Your task to perform on an android device: check android version Image 0: 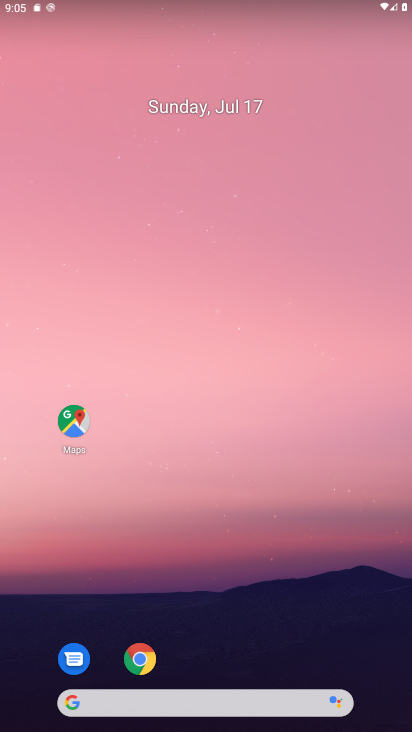
Step 0: drag from (189, 697) to (197, 173)
Your task to perform on an android device: check android version Image 1: 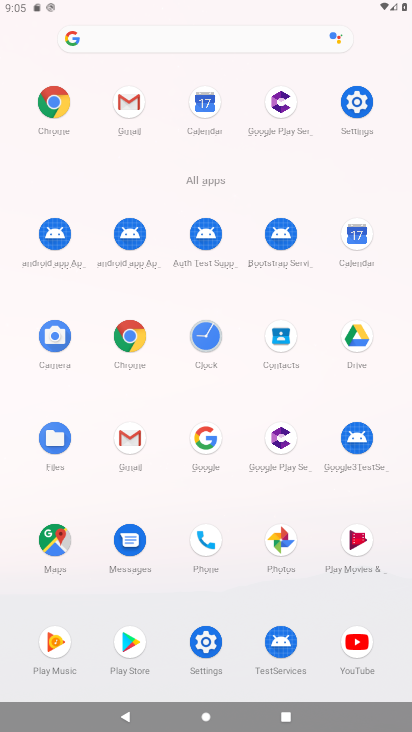
Step 1: click (371, 104)
Your task to perform on an android device: check android version Image 2: 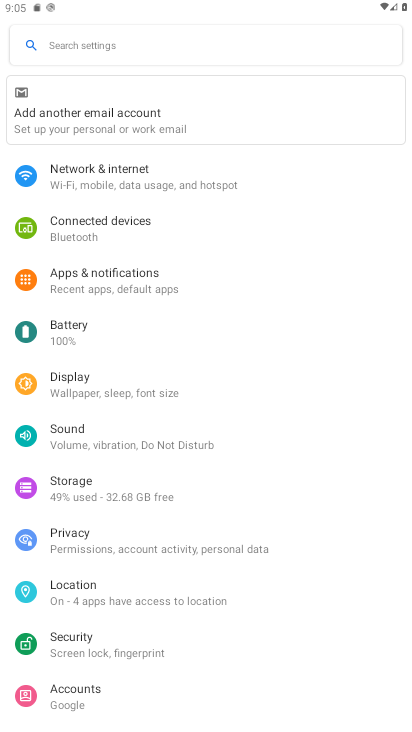
Step 2: drag from (107, 630) to (136, 114)
Your task to perform on an android device: check android version Image 3: 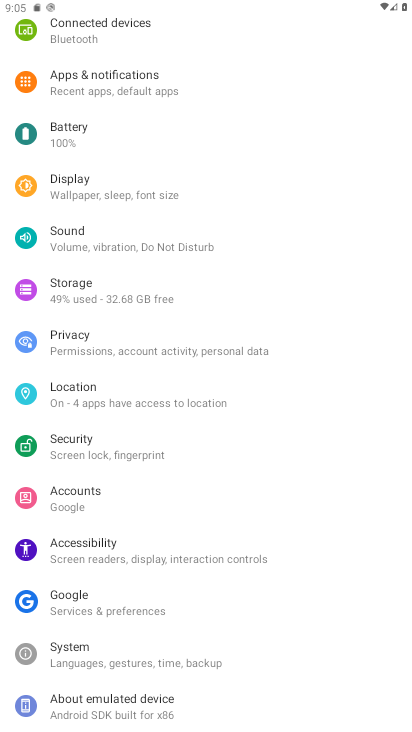
Step 3: click (116, 701)
Your task to perform on an android device: check android version Image 4: 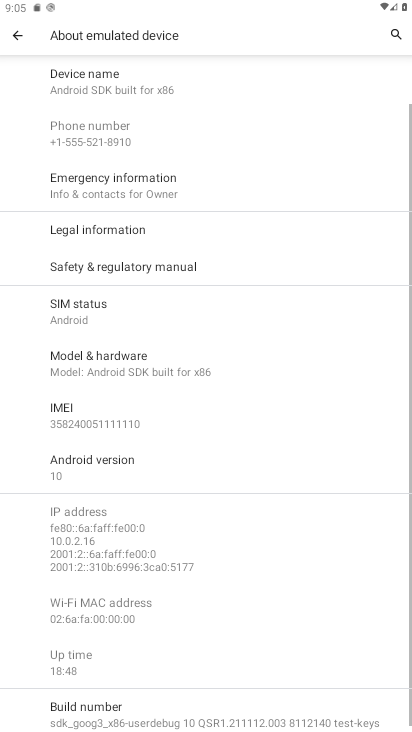
Step 4: click (187, 453)
Your task to perform on an android device: check android version Image 5: 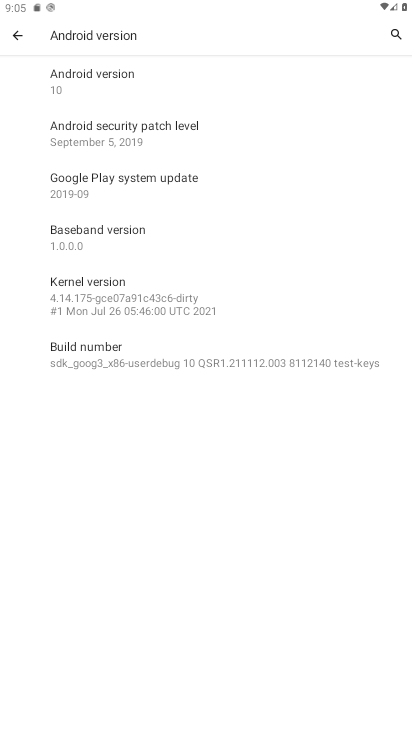
Step 5: task complete